Your task to perform on an android device: Search for seafood restaurants on Google Maps Image 0: 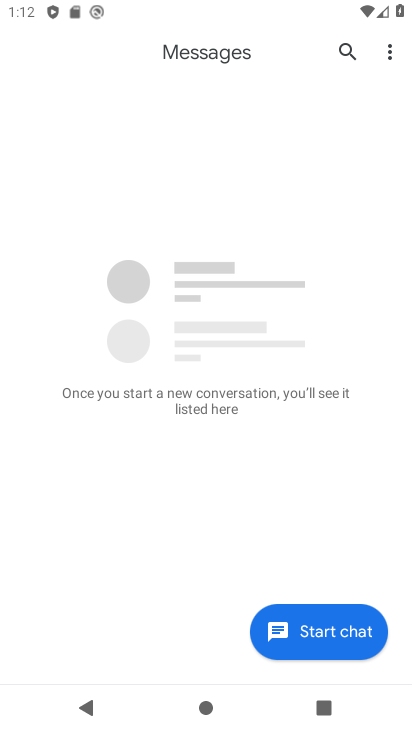
Step 0: press home button
Your task to perform on an android device: Search for seafood restaurants on Google Maps Image 1: 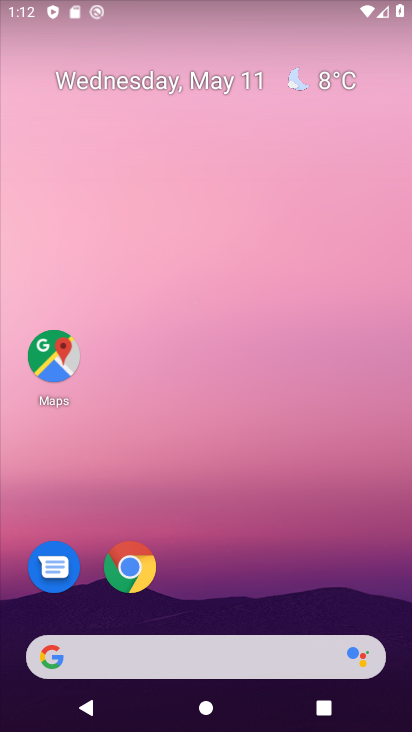
Step 1: click (64, 351)
Your task to perform on an android device: Search for seafood restaurants on Google Maps Image 2: 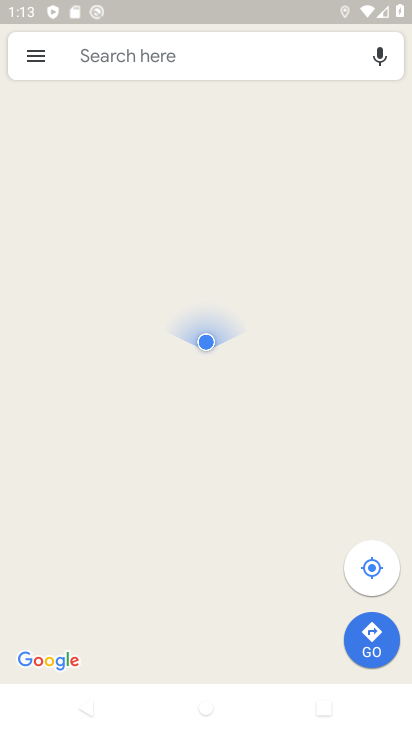
Step 2: click (134, 63)
Your task to perform on an android device: Search for seafood restaurants on Google Maps Image 3: 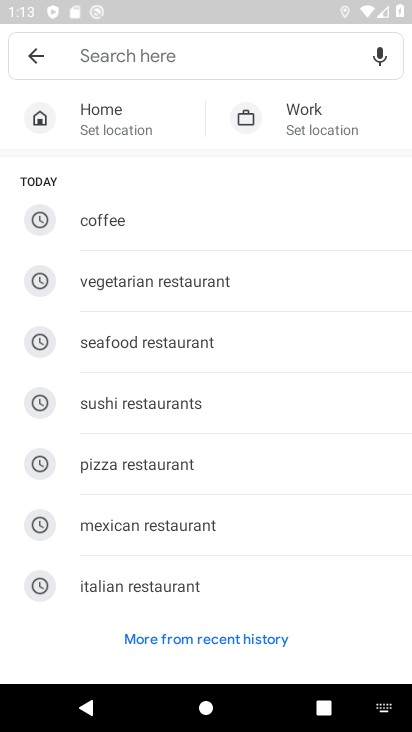
Step 3: click (197, 337)
Your task to perform on an android device: Search for seafood restaurants on Google Maps Image 4: 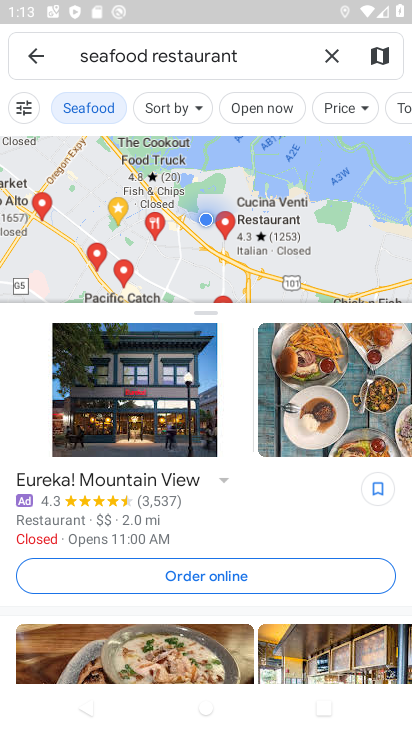
Step 4: task complete